Your task to perform on an android device: open a new tab in the chrome app Image 0: 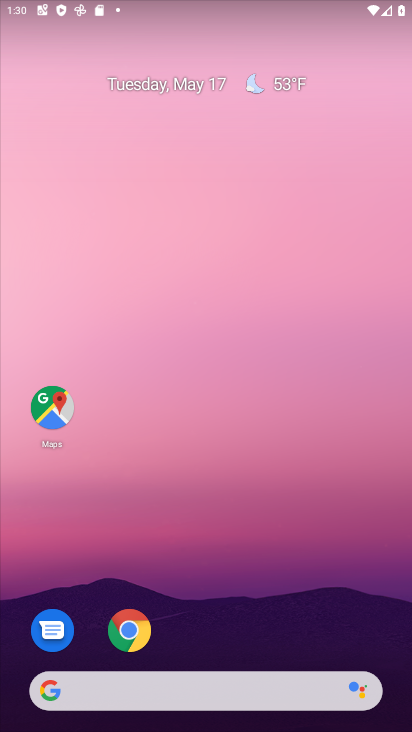
Step 0: drag from (217, 654) to (214, 289)
Your task to perform on an android device: open a new tab in the chrome app Image 1: 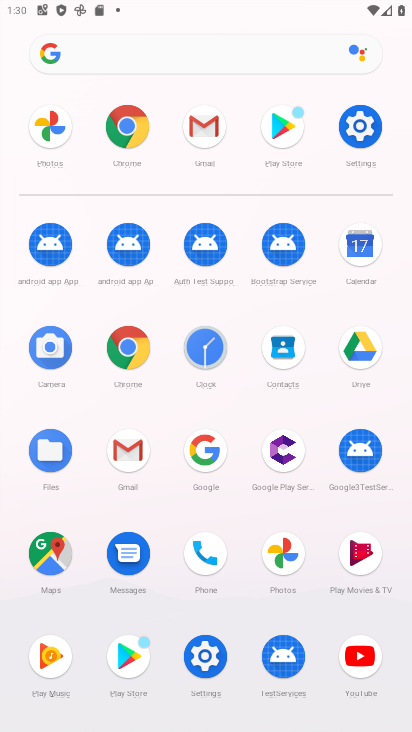
Step 1: click (139, 144)
Your task to perform on an android device: open a new tab in the chrome app Image 2: 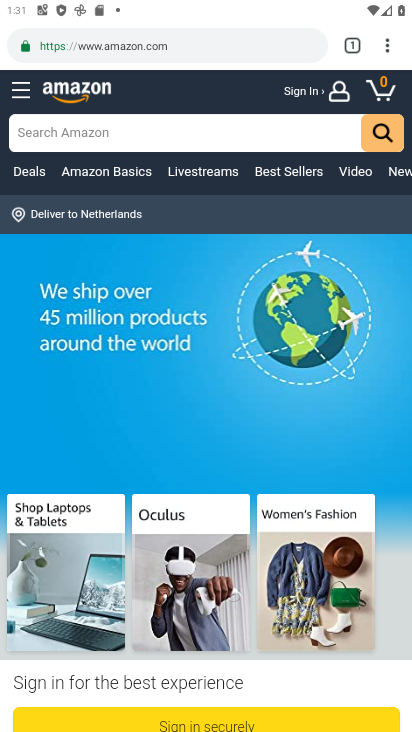
Step 2: drag from (345, 45) to (311, 290)
Your task to perform on an android device: open a new tab in the chrome app Image 3: 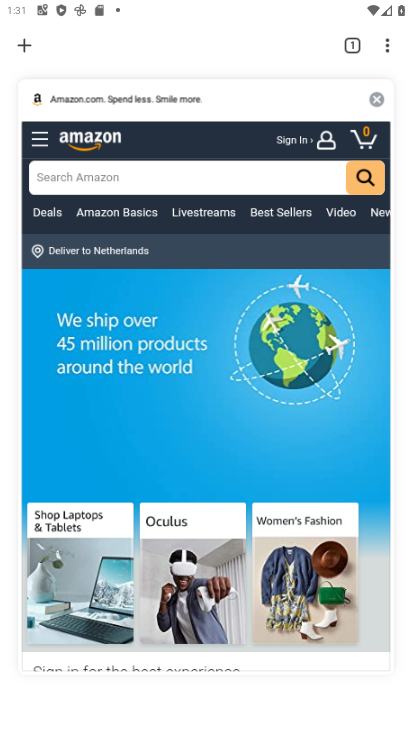
Step 3: click (30, 44)
Your task to perform on an android device: open a new tab in the chrome app Image 4: 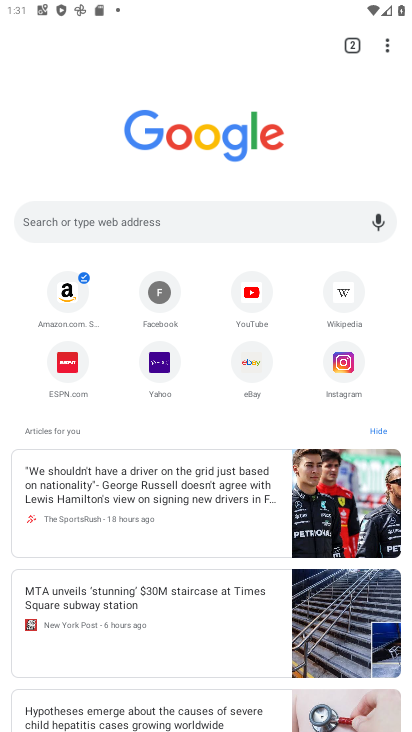
Step 4: task complete